Your task to perform on an android device: Go to Wikipedia Image 0: 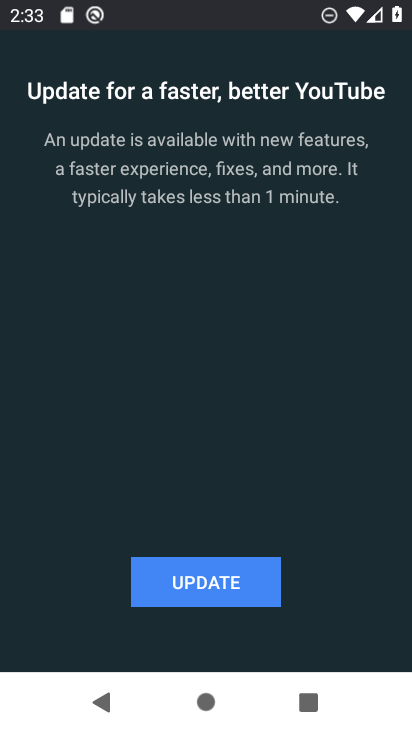
Step 0: press home button
Your task to perform on an android device: Go to Wikipedia Image 1: 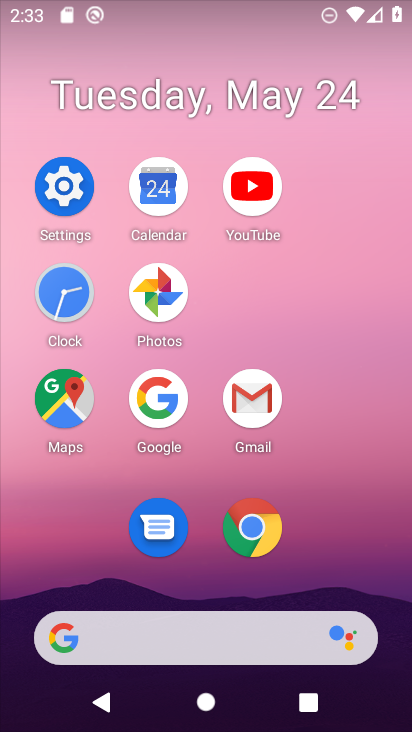
Step 1: click (260, 522)
Your task to perform on an android device: Go to Wikipedia Image 2: 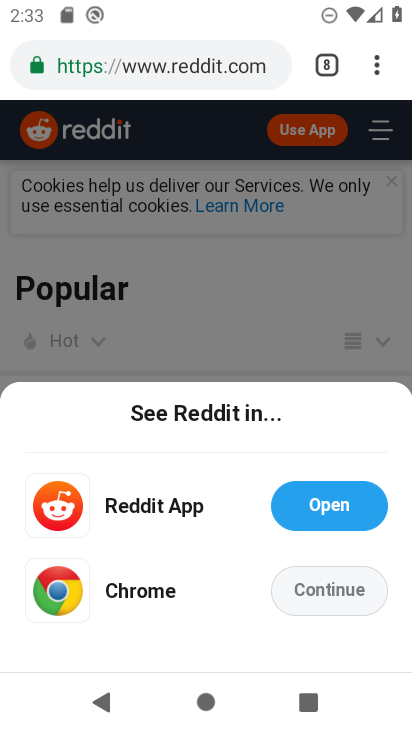
Step 2: click (330, 51)
Your task to perform on an android device: Go to Wikipedia Image 3: 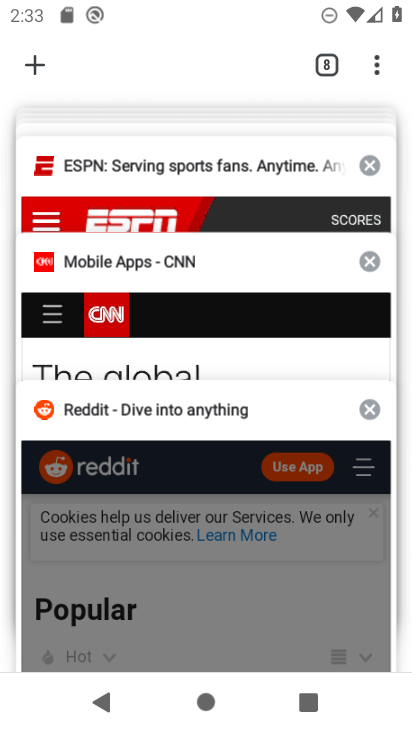
Step 3: drag from (212, 186) to (228, 515)
Your task to perform on an android device: Go to Wikipedia Image 4: 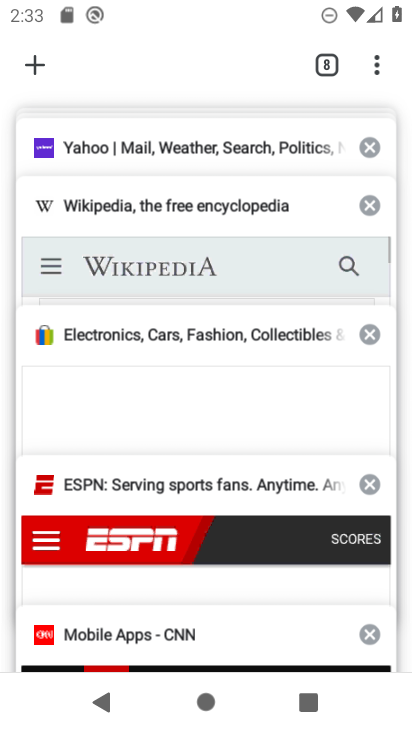
Step 4: drag from (189, 225) to (191, 447)
Your task to perform on an android device: Go to Wikipedia Image 5: 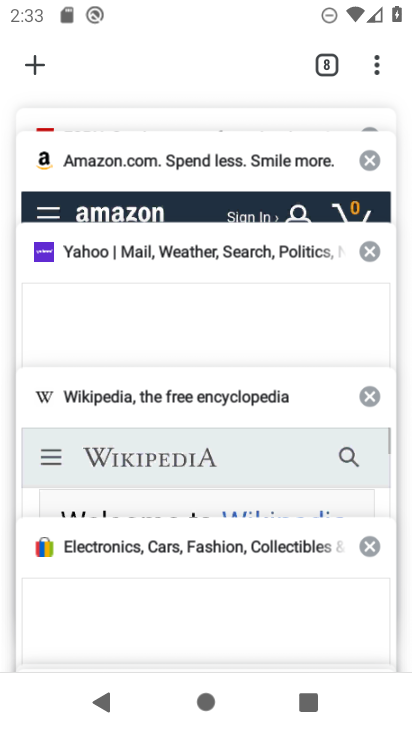
Step 5: click (161, 414)
Your task to perform on an android device: Go to Wikipedia Image 6: 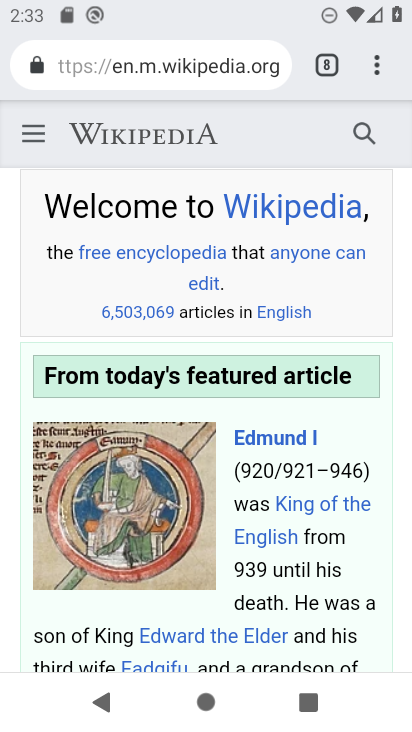
Step 6: task complete